Your task to perform on an android device: remove spam from my inbox in the gmail app Image 0: 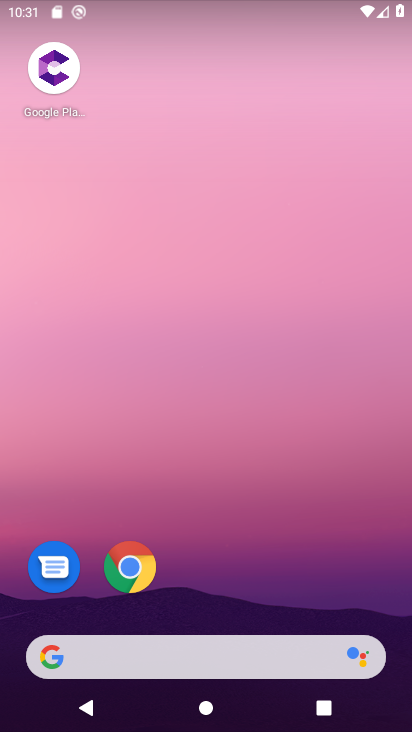
Step 0: drag from (307, 592) to (259, 170)
Your task to perform on an android device: remove spam from my inbox in the gmail app Image 1: 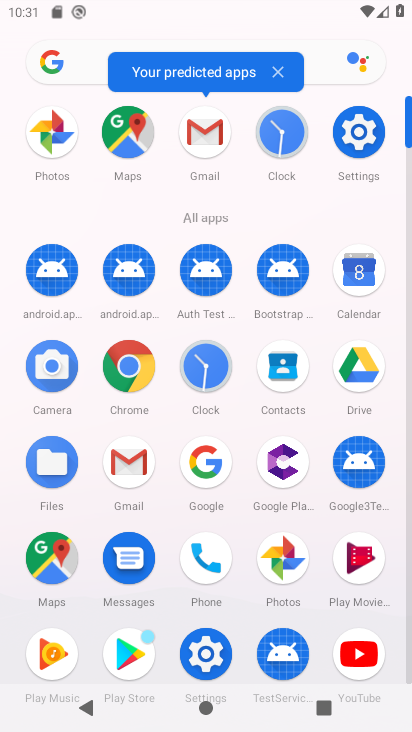
Step 1: click (217, 146)
Your task to perform on an android device: remove spam from my inbox in the gmail app Image 2: 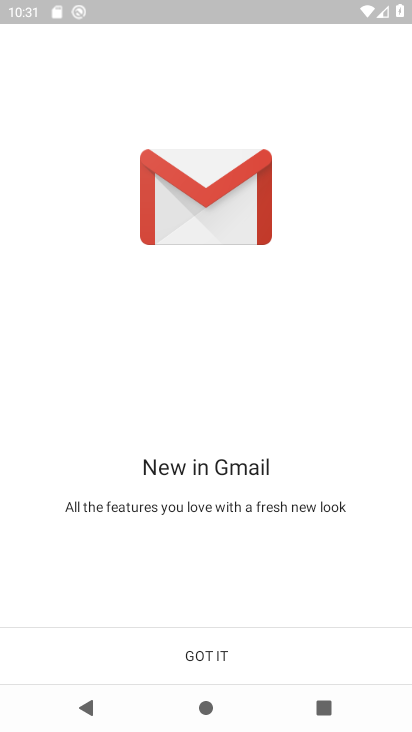
Step 2: click (301, 663)
Your task to perform on an android device: remove spam from my inbox in the gmail app Image 3: 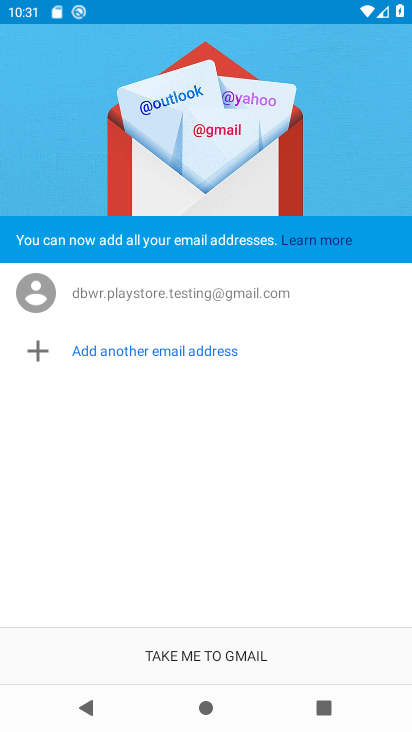
Step 3: click (174, 648)
Your task to perform on an android device: remove spam from my inbox in the gmail app Image 4: 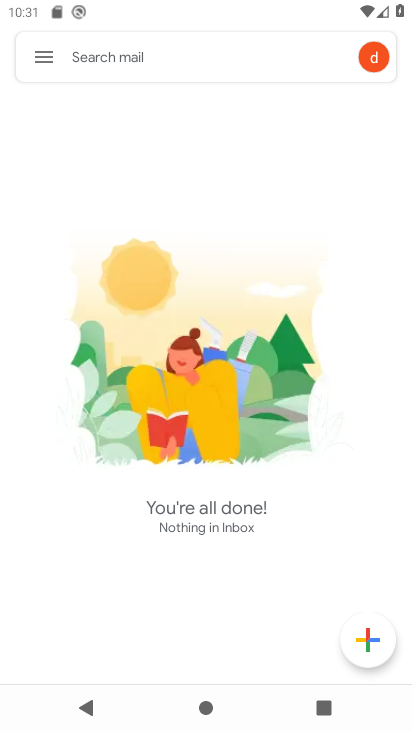
Step 4: click (130, 55)
Your task to perform on an android device: remove spam from my inbox in the gmail app Image 5: 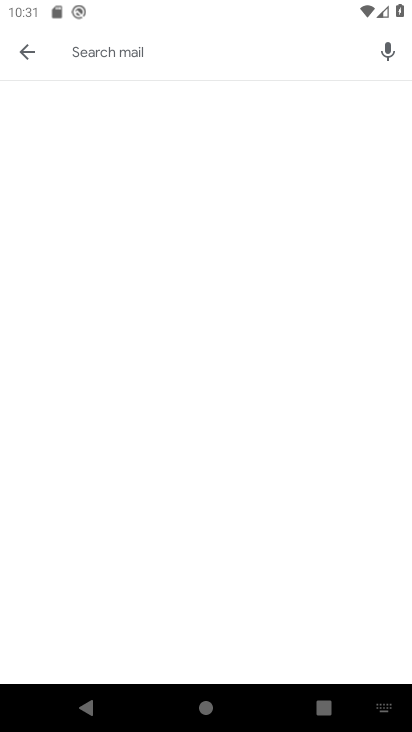
Step 5: click (25, 50)
Your task to perform on an android device: remove spam from my inbox in the gmail app Image 6: 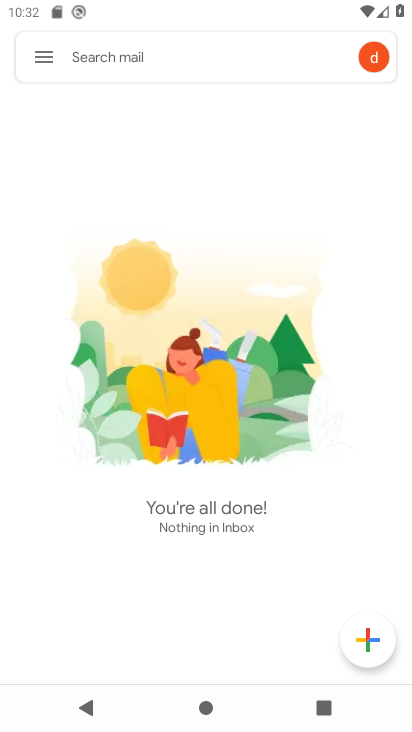
Step 6: click (38, 49)
Your task to perform on an android device: remove spam from my inbox in the gmail app Image 7: 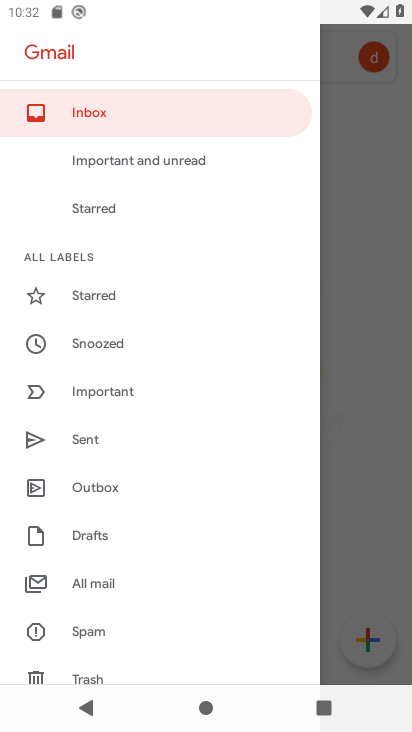
Step 7: click (109, 635)
Your task to perform on an android device: remove spam from my inbox in the gmail app Image 8: 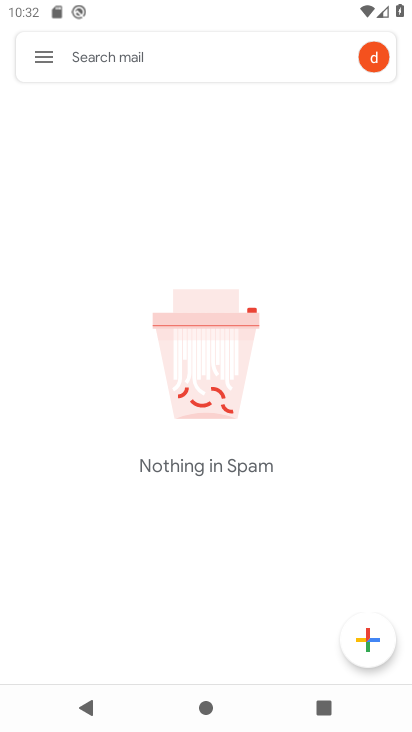
Step 8: task complete